Your task to perform on an android device: Clear all items from cart on costco. Add "macbook pro 13 inch" to the cart on costco Image 0: 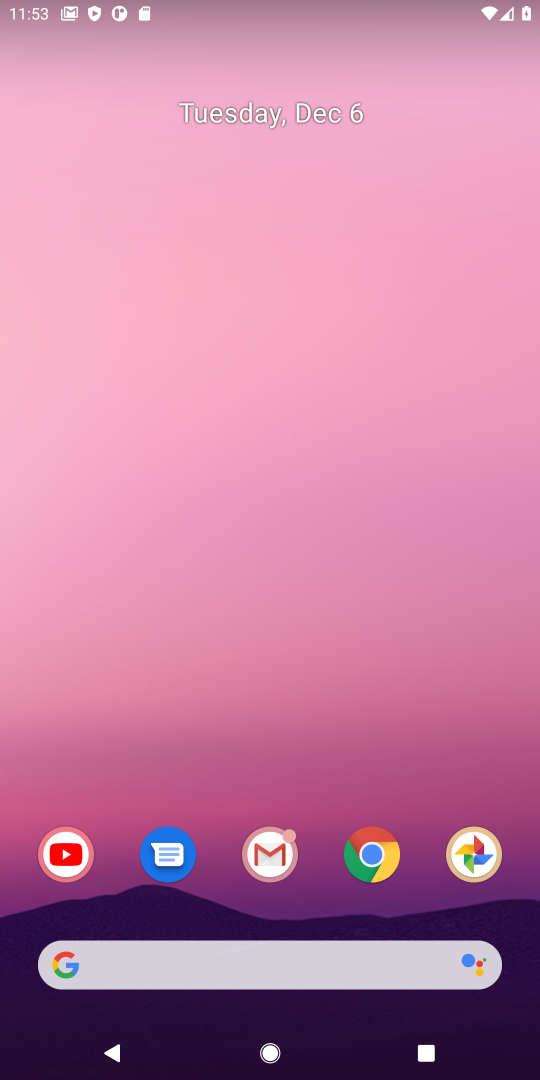
Step 0: drag from (242, 937) to (399, 212)
Your task to perform on an android device: Clear all items from cart on costco. Add "macbook pro 13 inch" to the cart on costco Image 1: 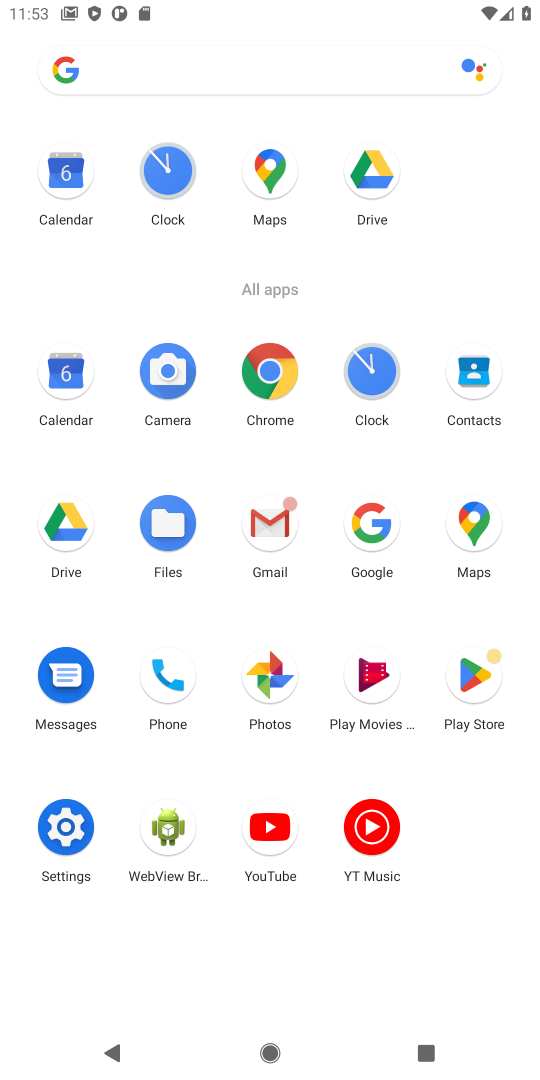
Step 1: click (380, 514)
Your task to perform on an android device: Clear all items from cart on costco. Add "macbook pro 13 inch" to the cart on costco Image 2: 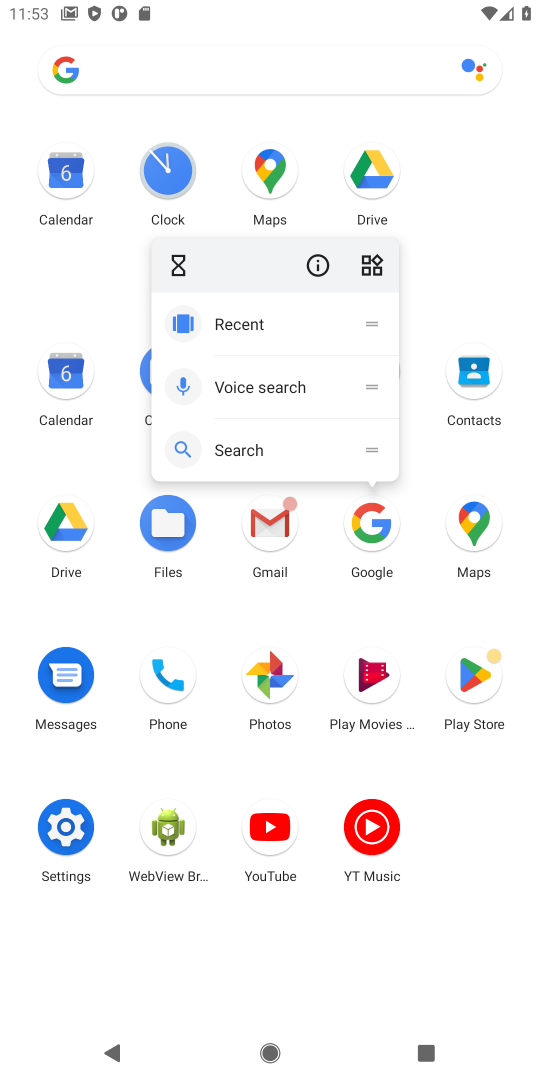
Step 2: click (380, 514)
Your task to perform on an android device: Clear all items from cart on costco. Add "macbook pro 13 inch" to the cart on costco Image 3: 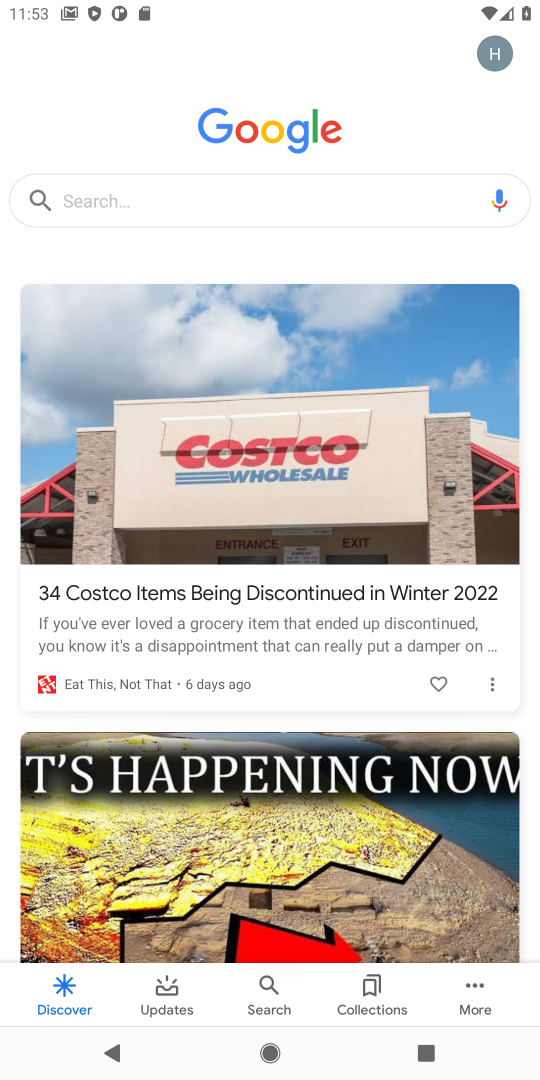
Step 3: click (193, 218)
Your task to perform on an android device: Clear all items from cart on costco. Add "macbook pro 13 inch" to the cart on costco Image 4: 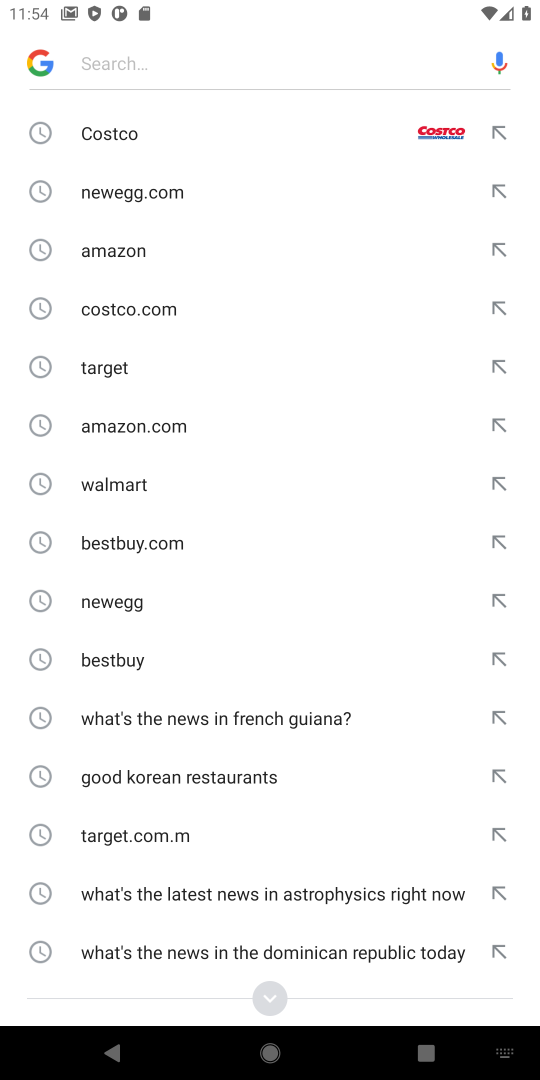
Step 4: click (145, 138)
Your task to perform on an android device: Clear all items from cart on costco. Add "macbook pro 13 inch" to the cart on costco Image 5: 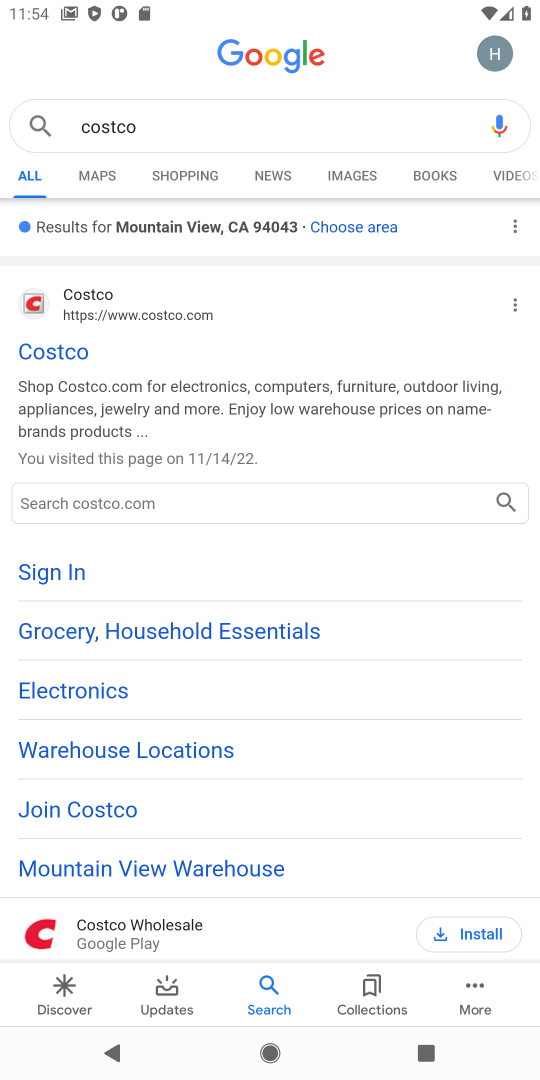
Step 5: click (66, 354)
Your task to perform on an android device: Clear all items from cart on costco. Add "macbook pro 13 inch" to the cart on costco Image 6: 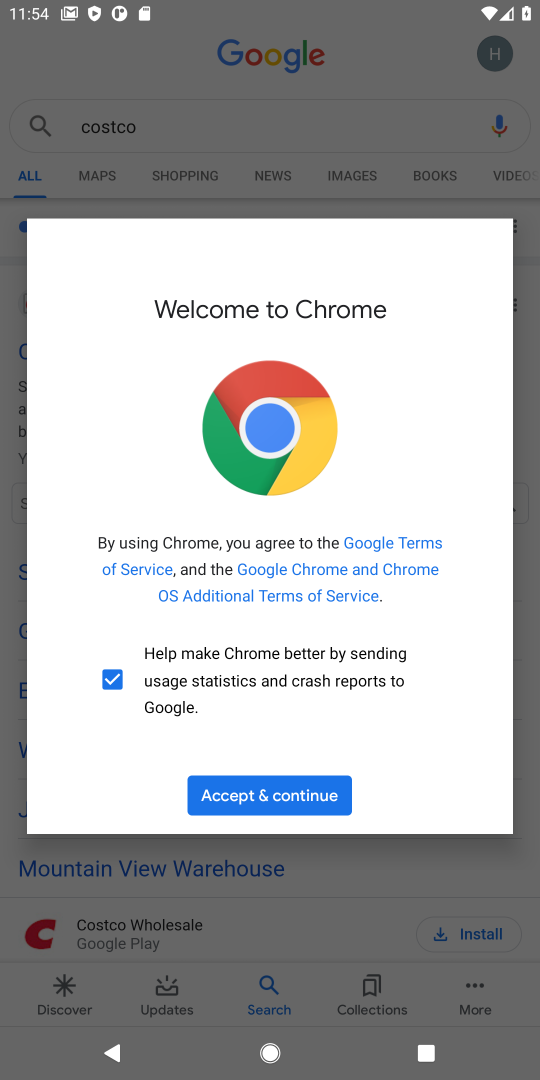
Step 6: click (282, 792)
Your task to perform on an android device: Clear all items from cart on costco. Add "macbook pro 13 inch" to the cart on costco Image 7: 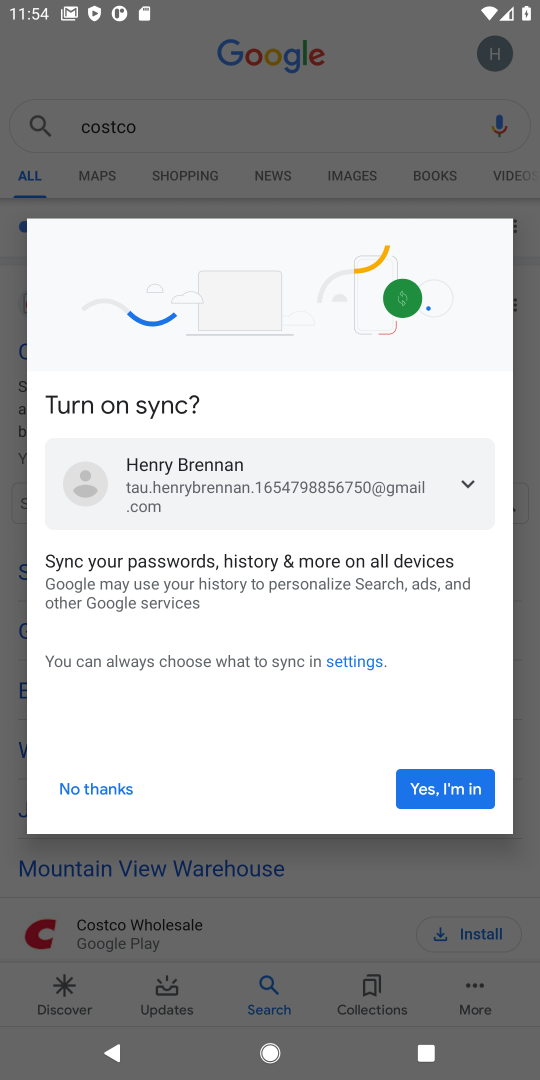
Step 7: click (483, 801)
Your task to perform on an android device: Clear all items from cart on costco. Add "macbook pro 13 inch" to the cart on costco Image 8: 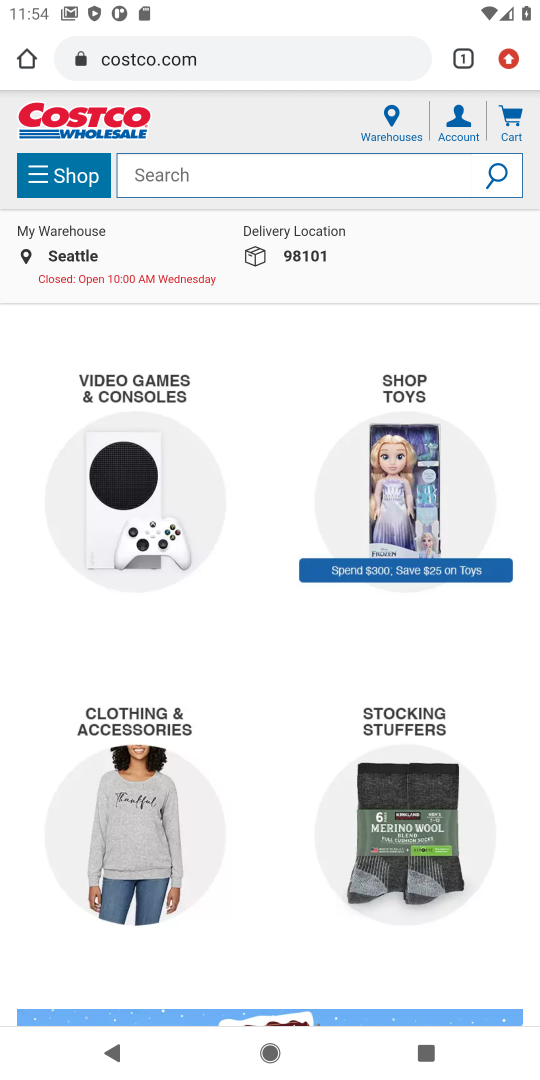
Step 8: click (214, 181)
Your task to perform on an android device: Clear all items from cart on costco. Add "macbook pro 13 inch" to the cart on costco Image 9: 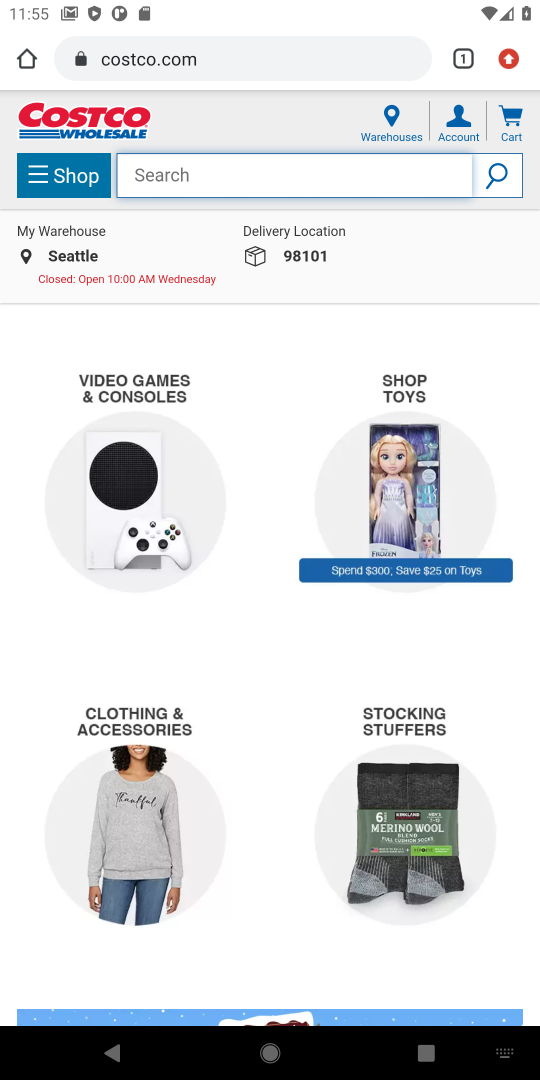
Step 9: type "macbook pro 13 inch"
Your task to perform on an android device: Clear all items from cart on costco. Add "macbook pro 13 inch" to the cart on costco Image 10: 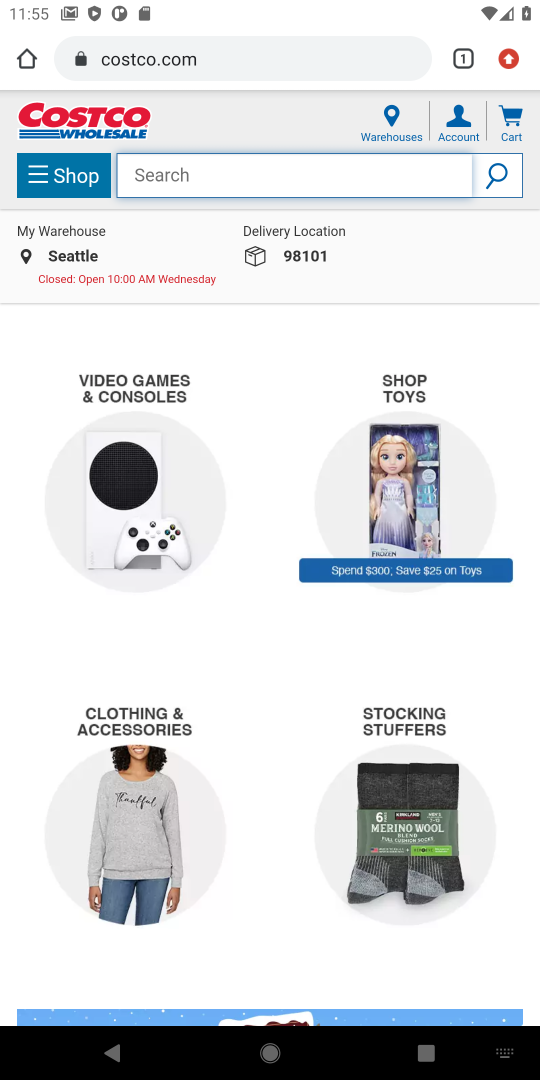
Step 10: click (503, 172)
Your task to perform on an android device: Clear all items from cart on costco. Add "macbook pro 13 inch" to the cart on costco Image 11: 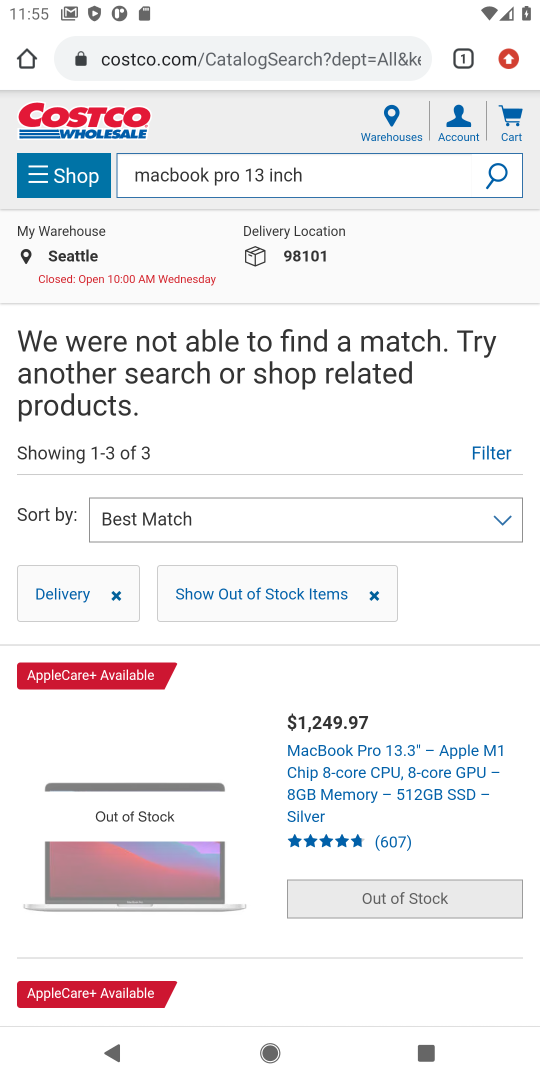
Step 11: drag from (285, 747) to (381, 306)
Your task to perform on an android device: Clear all items from cart on costco. Add "macbook pro 13 inch" to the cart on costco Image 12: 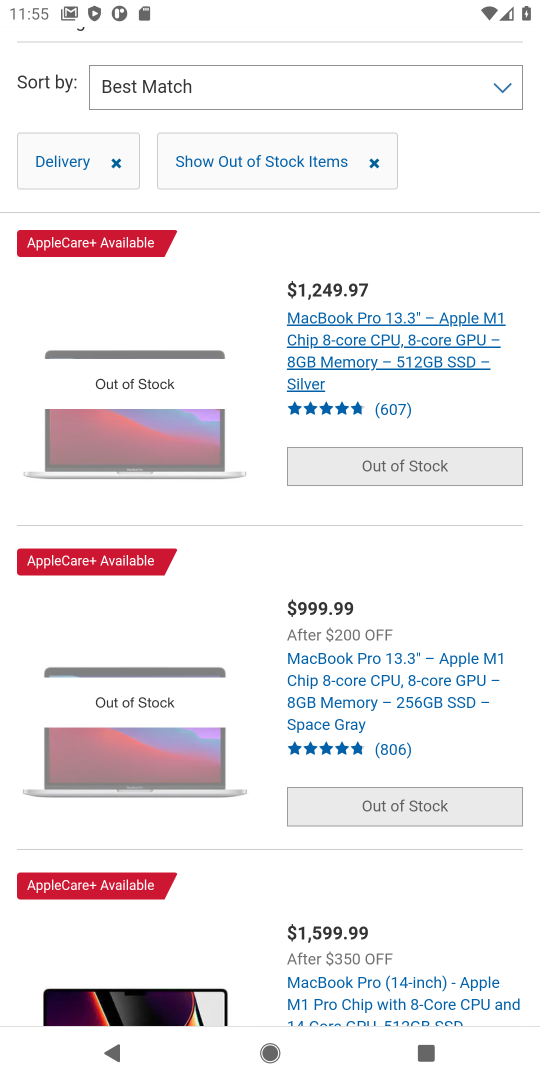
Step 12: click (357, 461)
Your task to perform on an android device: Clear all items from cart on costco. Add "macbook pro 13 inch" to the cart on costco Image 13: 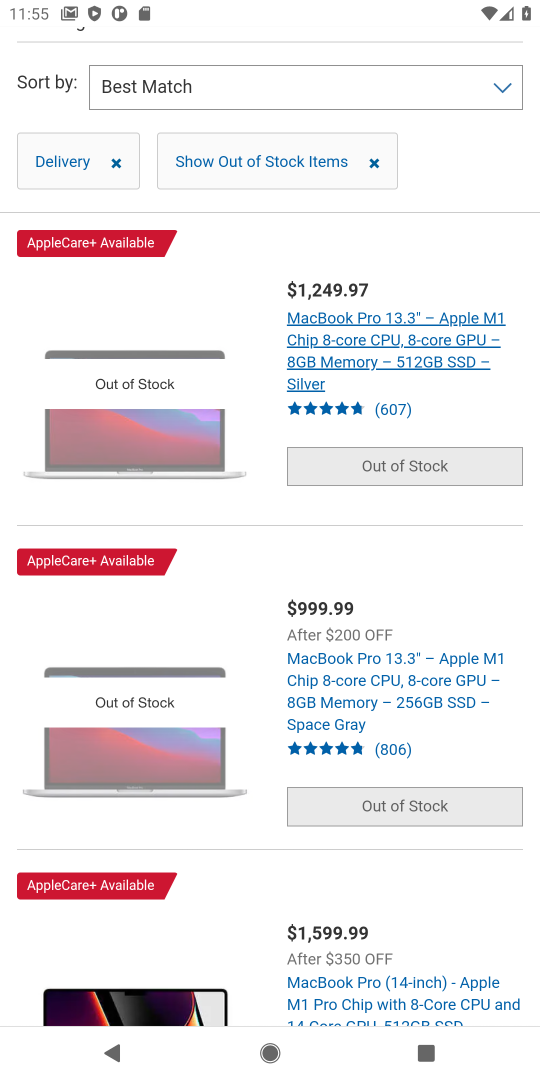
Step 13: task complete